Your task to perform on an android device: Open the stopwatch Image 0: 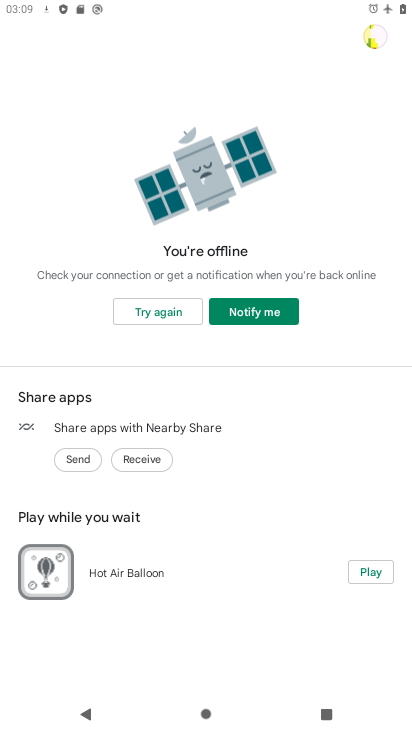
Step 0: press home button
Your task to perform on an android device: Open the stopwatch Image 1: 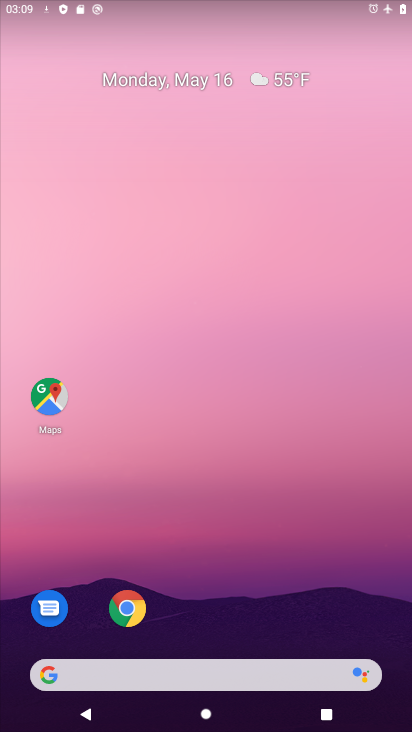
Step 1: drag from (223, 626) to (206, 207)
Your task to perform on an android device: Open the stopwatch Image 2: 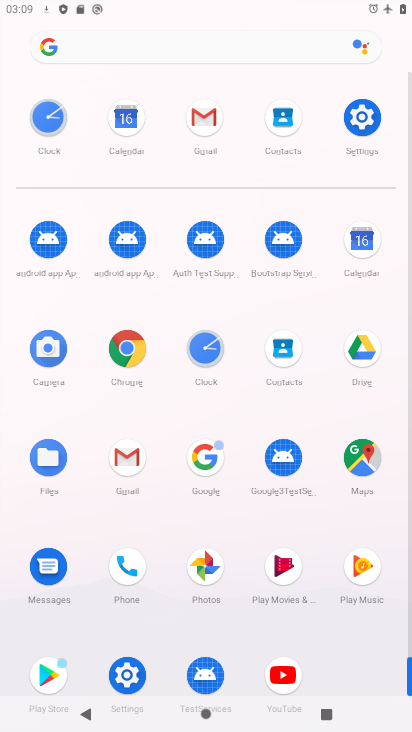
Step 2: click (54, 119)
Your task to perform on an android device: Open the stopwatch Image 3: 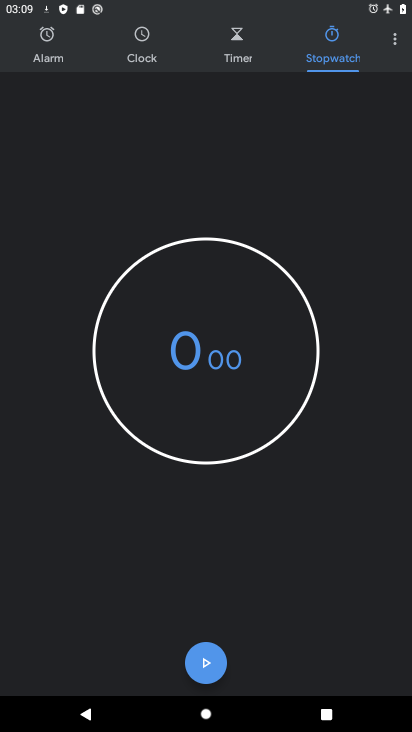
Step 3: task complete